Your task to perform on an android device: change keyboard looks Image 0: 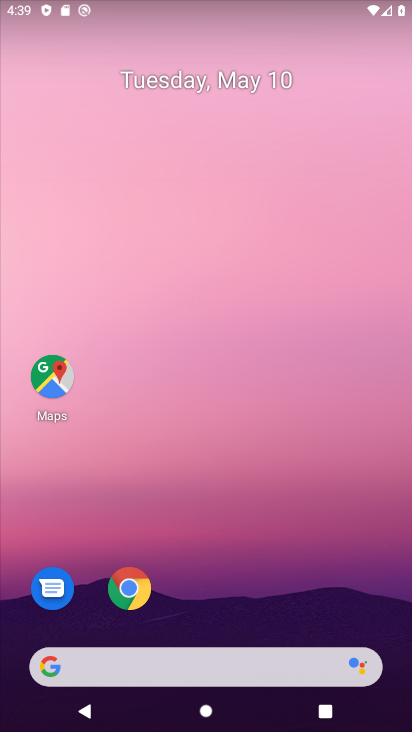
Step 0: drag from (325, 570) to (328, 25)
Your task to perform on an android device: change keyboard looks Image 1: 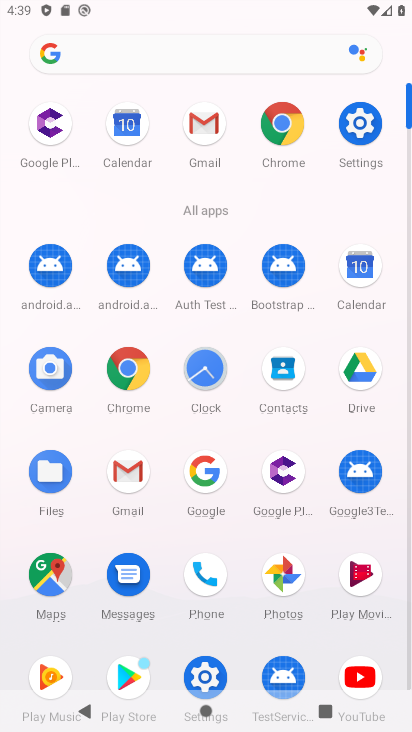
Step 1: click (363, 127)
Your task to perform on an android device: change keyboard looks Image 2: 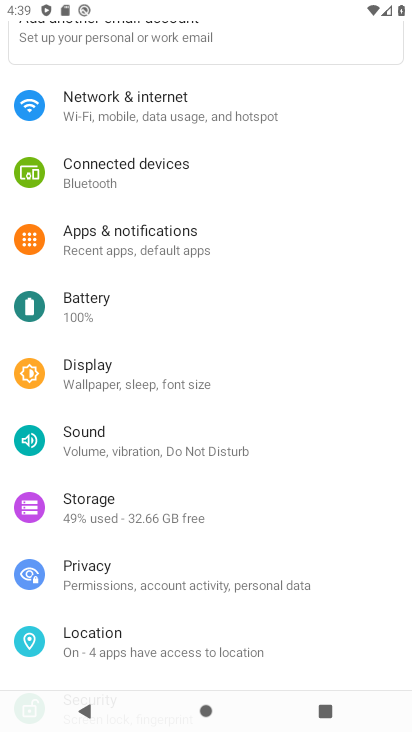
Step 2: drag from (213, 524) to (208, 66)
Your task to perform on an android device: change keyboard looks Image 3: 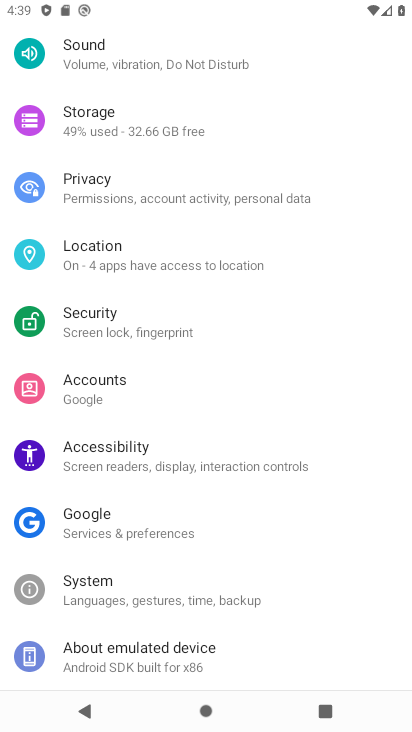
Step 3: click (145, 584)
Your task to perform on an android device: change keyboard looks Image 4: 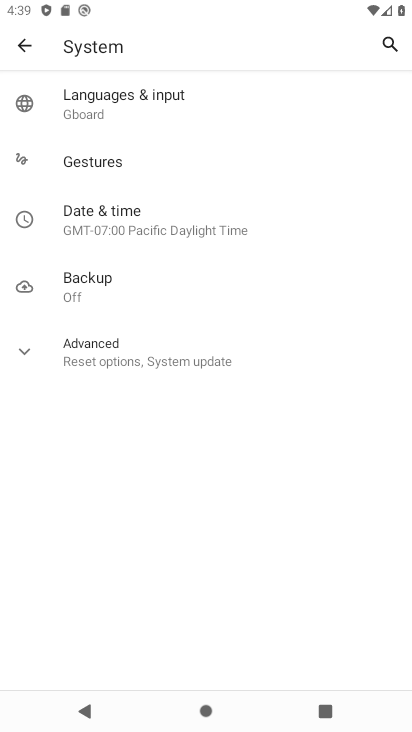
Step 4: click (112, 103)
Your task to perform on an android device: change keyboard looks Image 5: 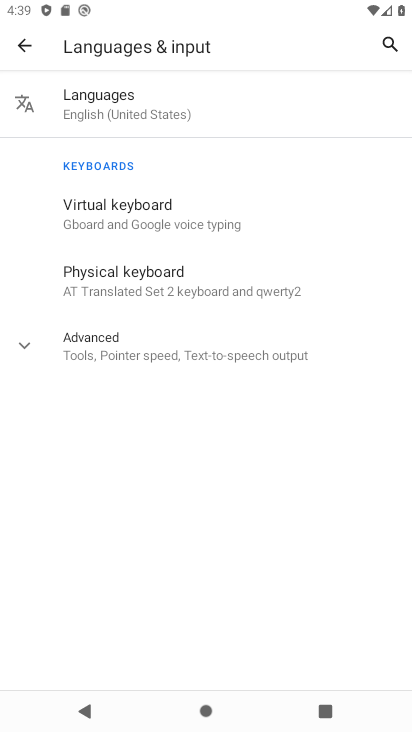
Step 5: click (100, 210)
Your task to perform on an android device: change keyboard looks Image 6: 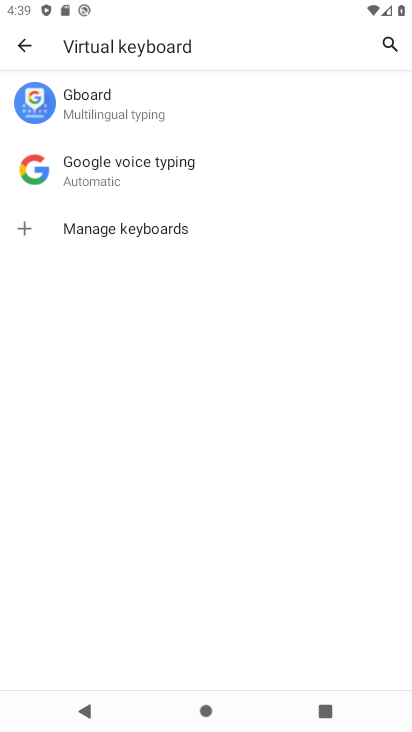
Step 6: click (89, 92)
Your task to perform on an android device: change keyboard looks Image 7: 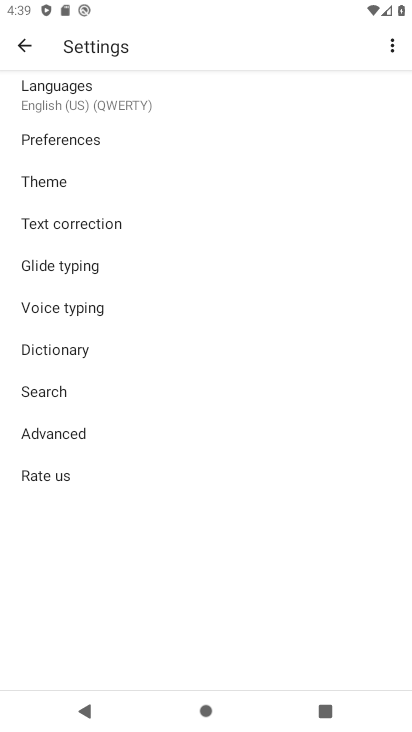
Step 7: click (61, 177)
Your task to perform on an android device: change keyboard looks Image 8: 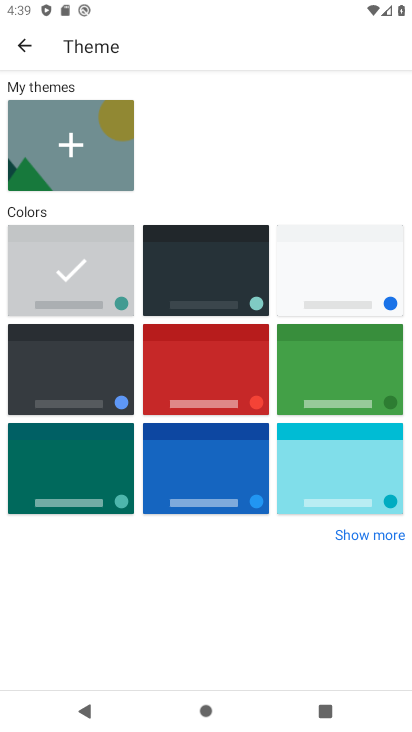
Step 8: click (198, 261)
Your task to perform on an android device: change keyboard looks Image 9: 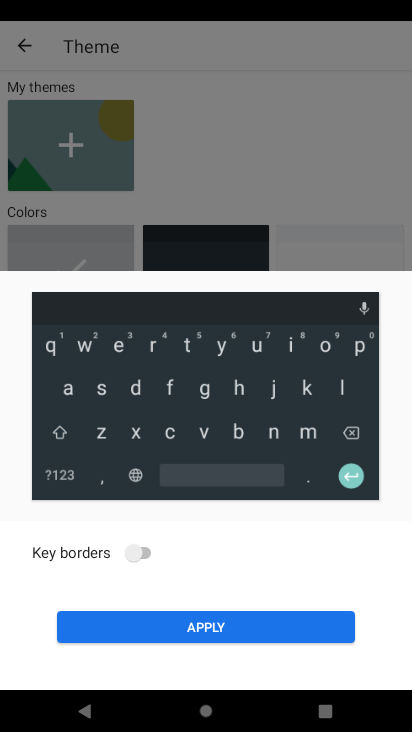
Step 9: click (143, 546)
Your task to perform on an android device: change keyboard looks Image 10: 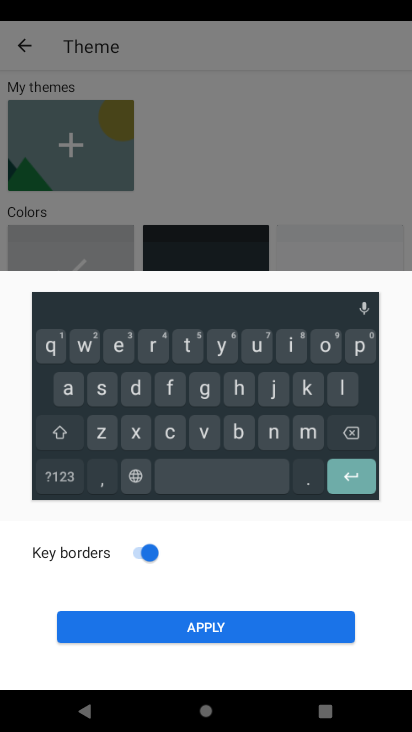
Step 10: click (237, 618)
Your task to perform on an android device: change keyboard looks Image 11: 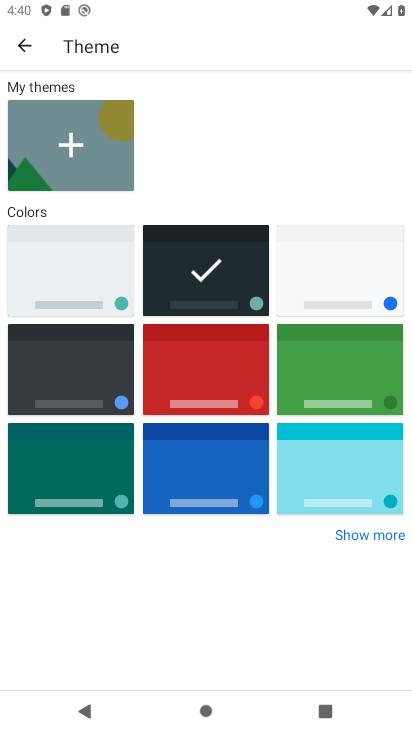
Step 11: task complete